Your task to perform on an android device: Go to wifi settings Image 0: 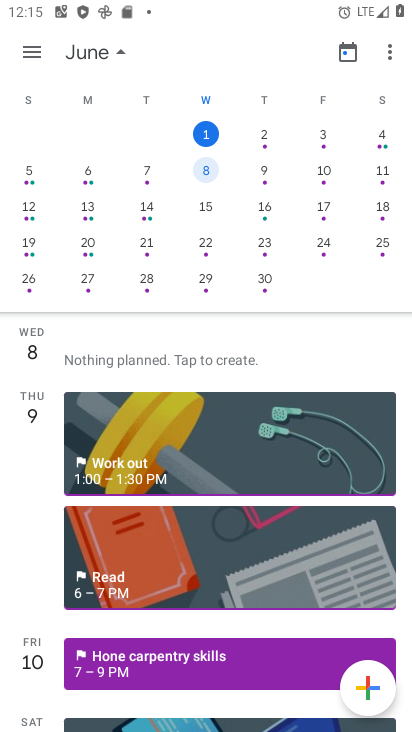
Step 0: task complete